Your task to perform on an android device: Search for Mexican restaurants on Maps Image 0: 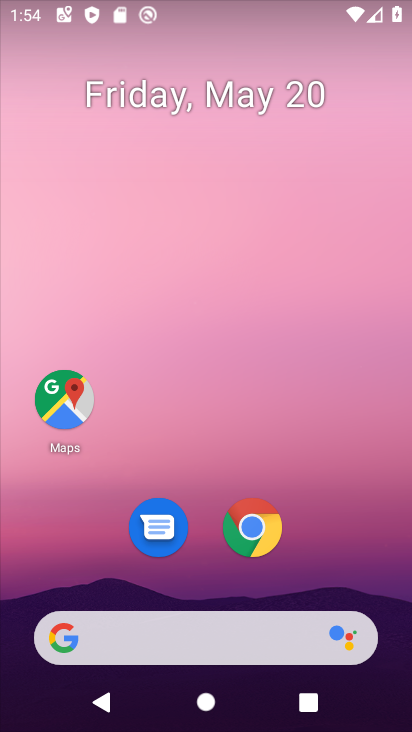
Step 0: click (47, 402)
Your task to perform on an android device: Search for Mexican restaurants on Maps Image 1: 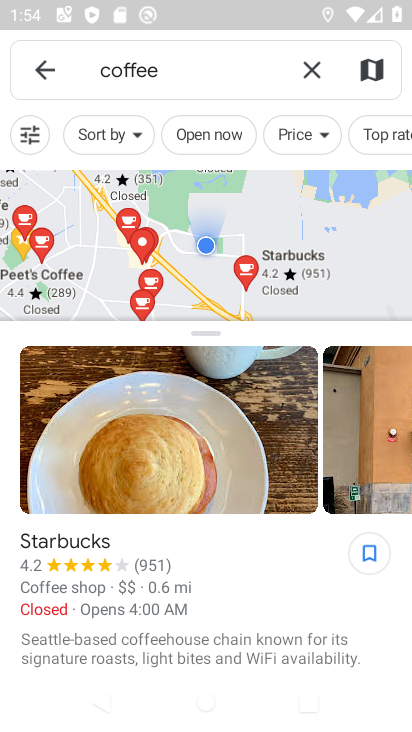
Step 1: click (314, 70)
Your task to perform on an android device: Search for Mexican restaurants on Maps Image 2: 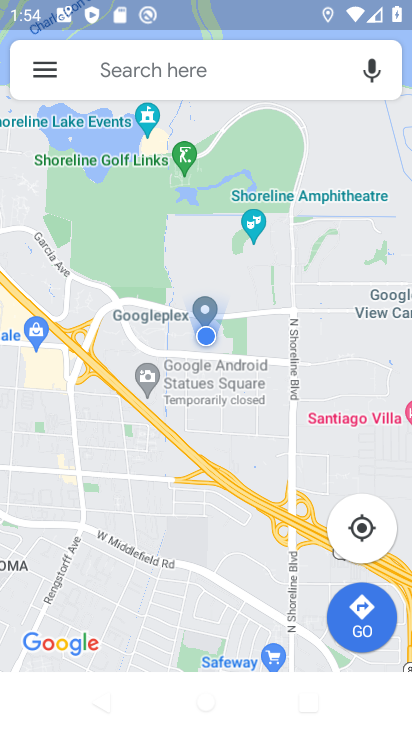
Step 2: click (234, 72)
Your task to perform on an android device: Search for Mexican restaurants on Maps Image 3: 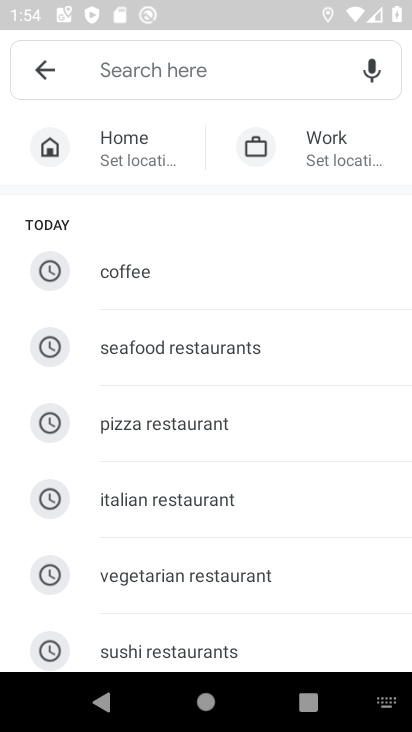
Step 3: drag from (266, 569) to (247, 105)
Your task to perform on an android device: Search for Mexican restaurants on Maps Image 4: 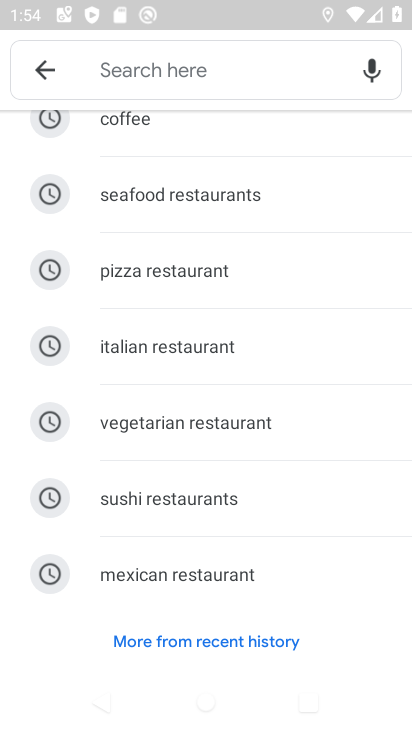
Step 4: click (175, 575)
Your task to perform on an android device: Search for Mexican restaurants on Maps Image 5: 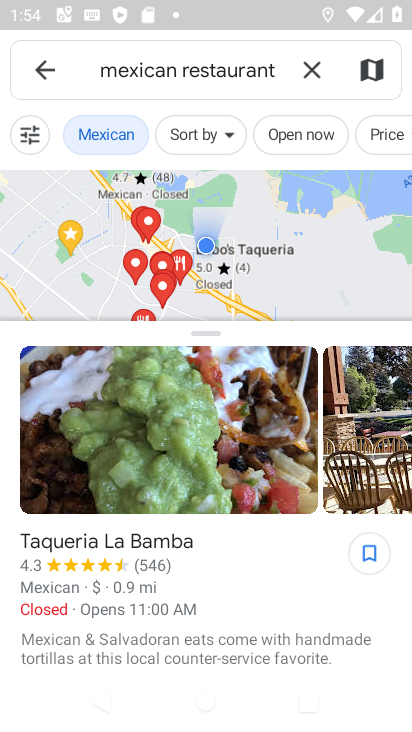
Step 5: task complete